Your task to perform on an android device: Search for Mexican restaurants on Maps Image 0: 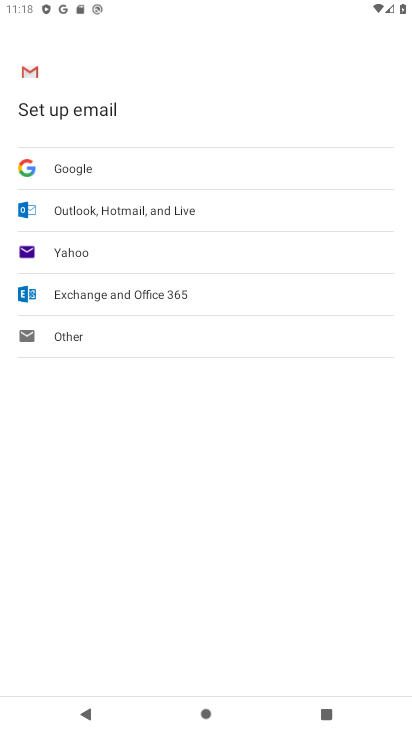
Step 0: press home button
Your task to perform on an android device: Search for Mexican restaurants on Maps Image 1: 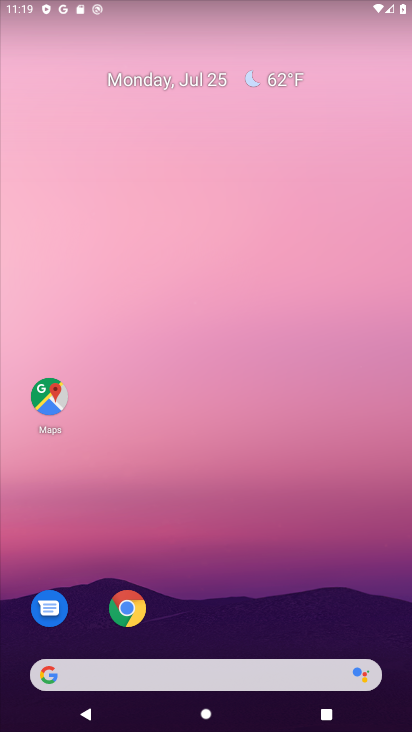
Step 1: click (260, 678)
Your task to perform on an android device: Search for Mexican restaurants on Maps Image 2: 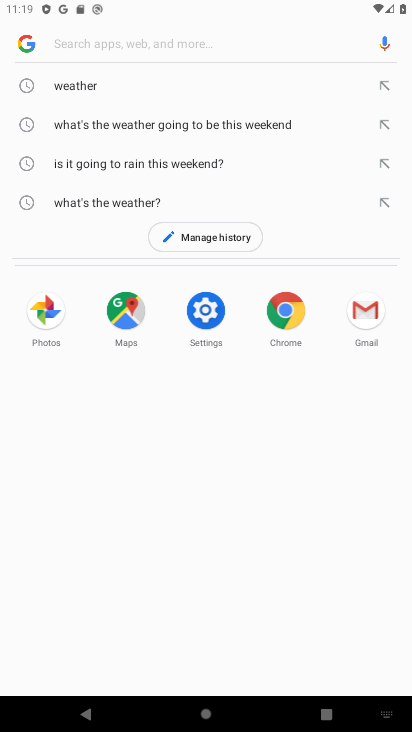
Step 2: type "Mexican restaurants "
Your task to perform on an android device: Search for Mexican restaurants on Maps Image 3: 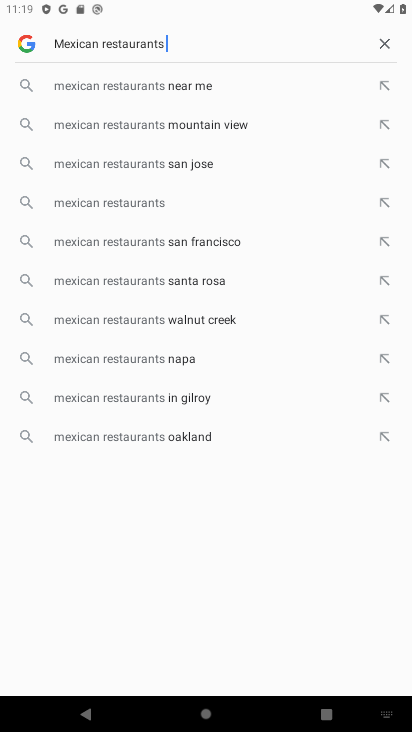
Step 3: press enter
Your task to perform on an android device: Search for Mexican restaurants on Maps Image 4: 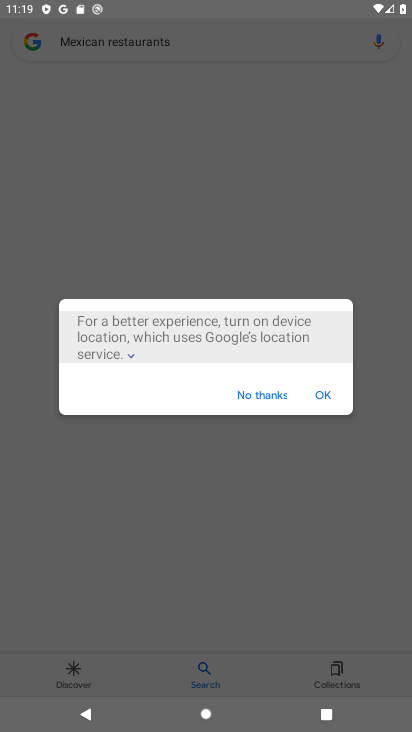
Step 4: click (325, 392)
Your task to perform on an android device: Search for Mexican restaurants on Maps Image 5: 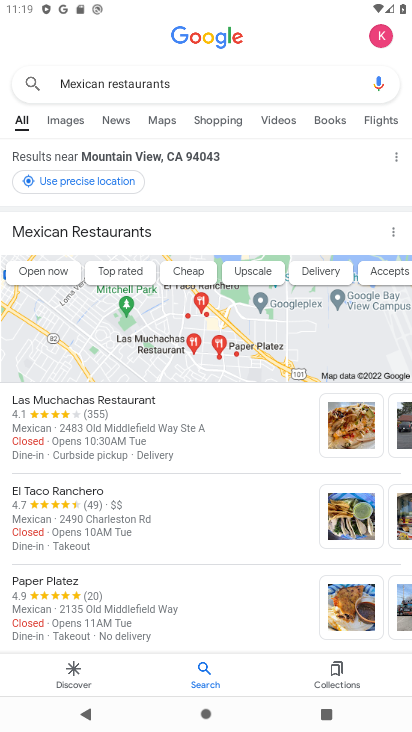
Step 5: task complete